Your task to perform on an android device: Search for razer blade on ebay, select the first entry, and add it to the cart. Image 0: 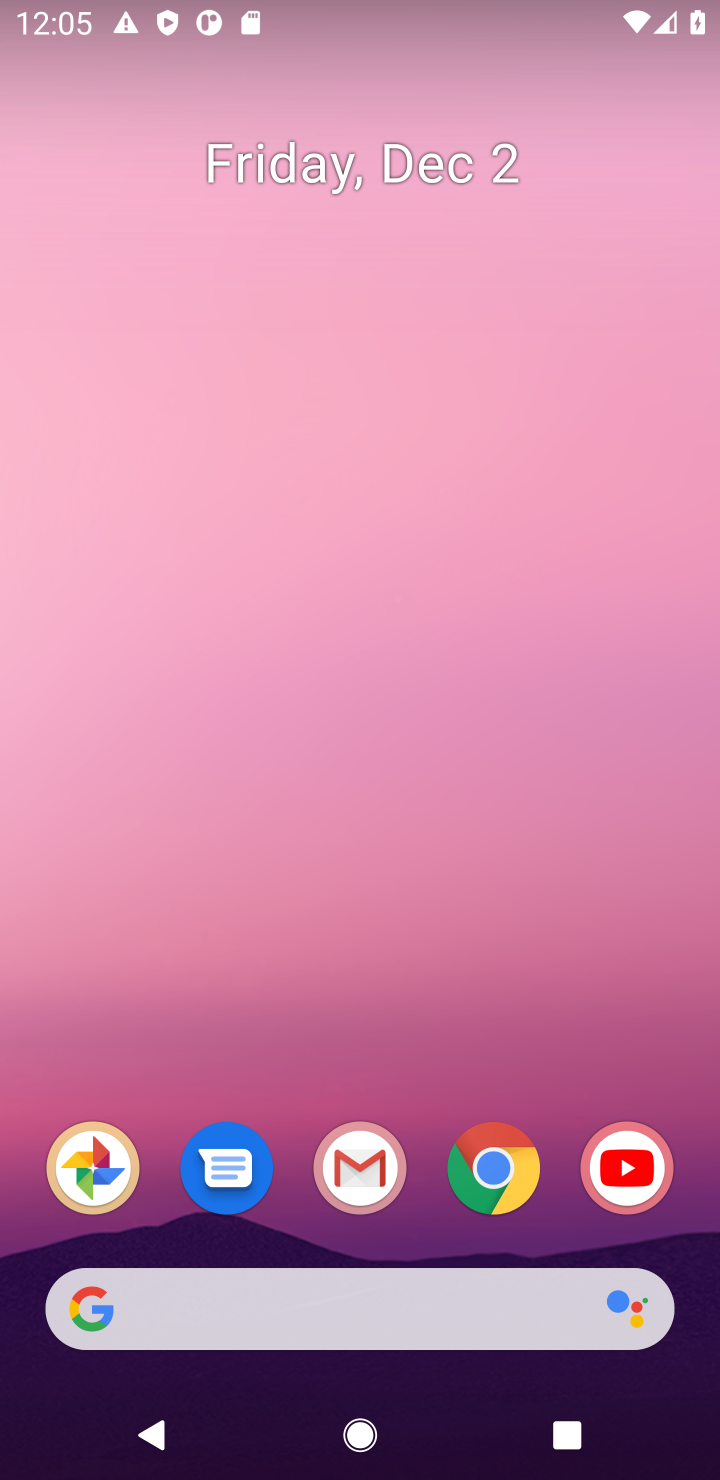
Step 0: click (84, 1306)
Your task to perform on an android device: Search for razer blade on ebay, select the first entry, and add it to the cart. Image 1: 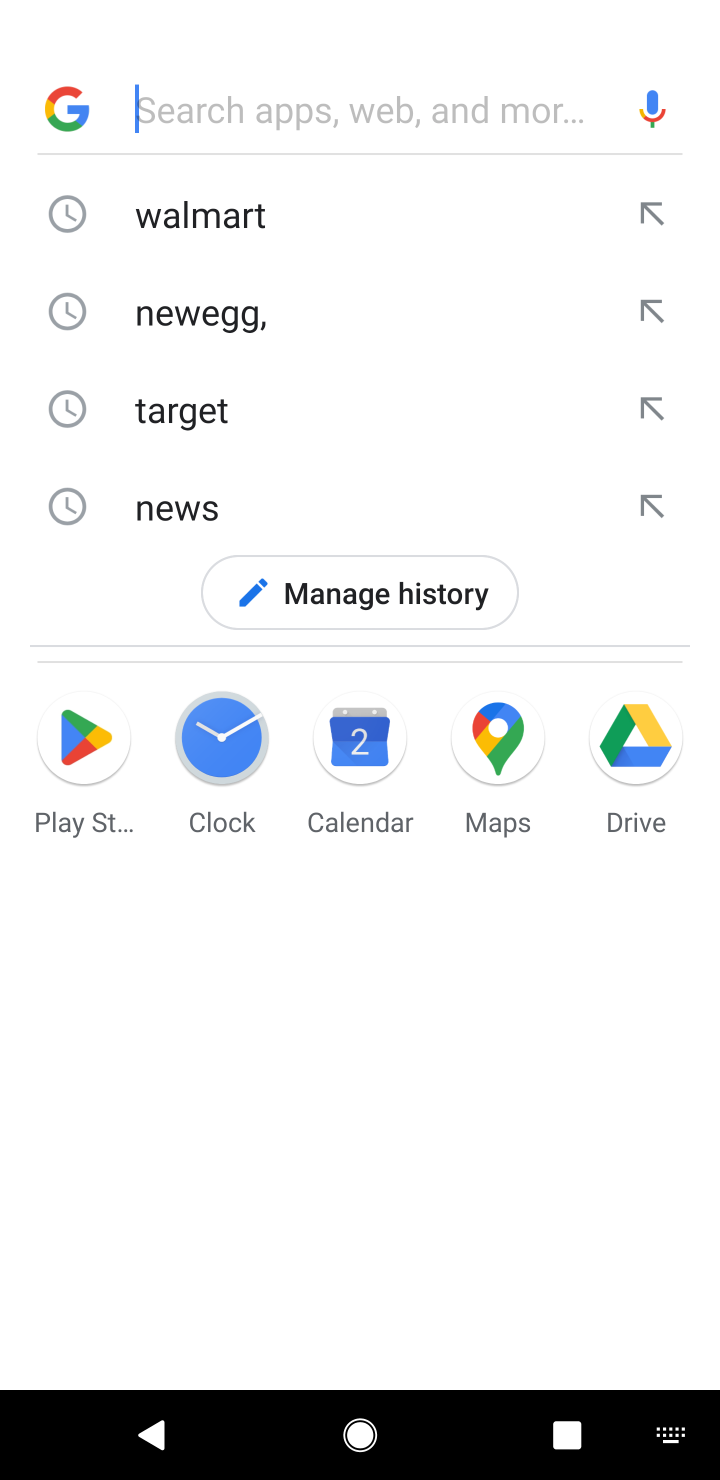
Step 1: click (353, 99)
Your task to perform on an android device: Search for razer blade on ebay, select the first entry, and add it to the cart. Image 2: 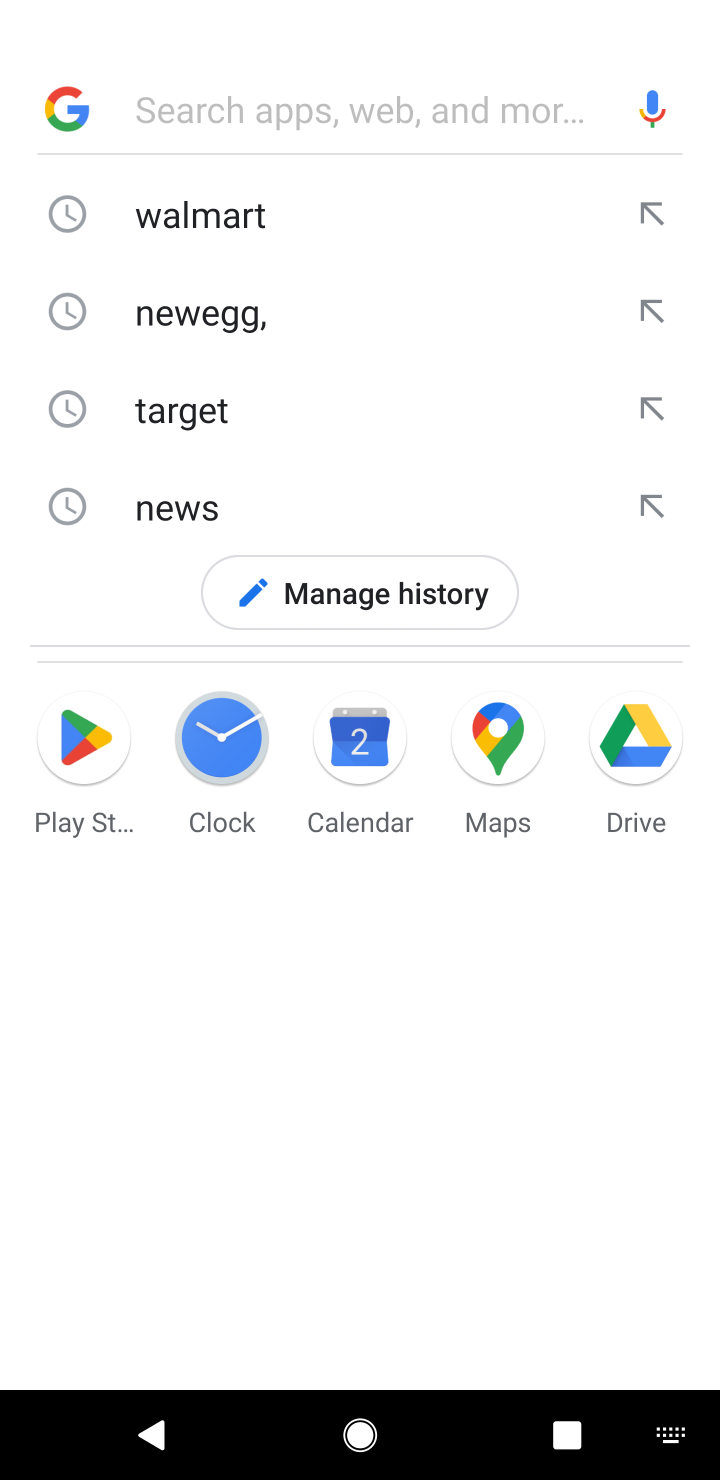
Step 2: type "ebay"
Your task to perform on an android device: Search for razer blade on ebay, select the first entry, and add it to the cart. Image 3: 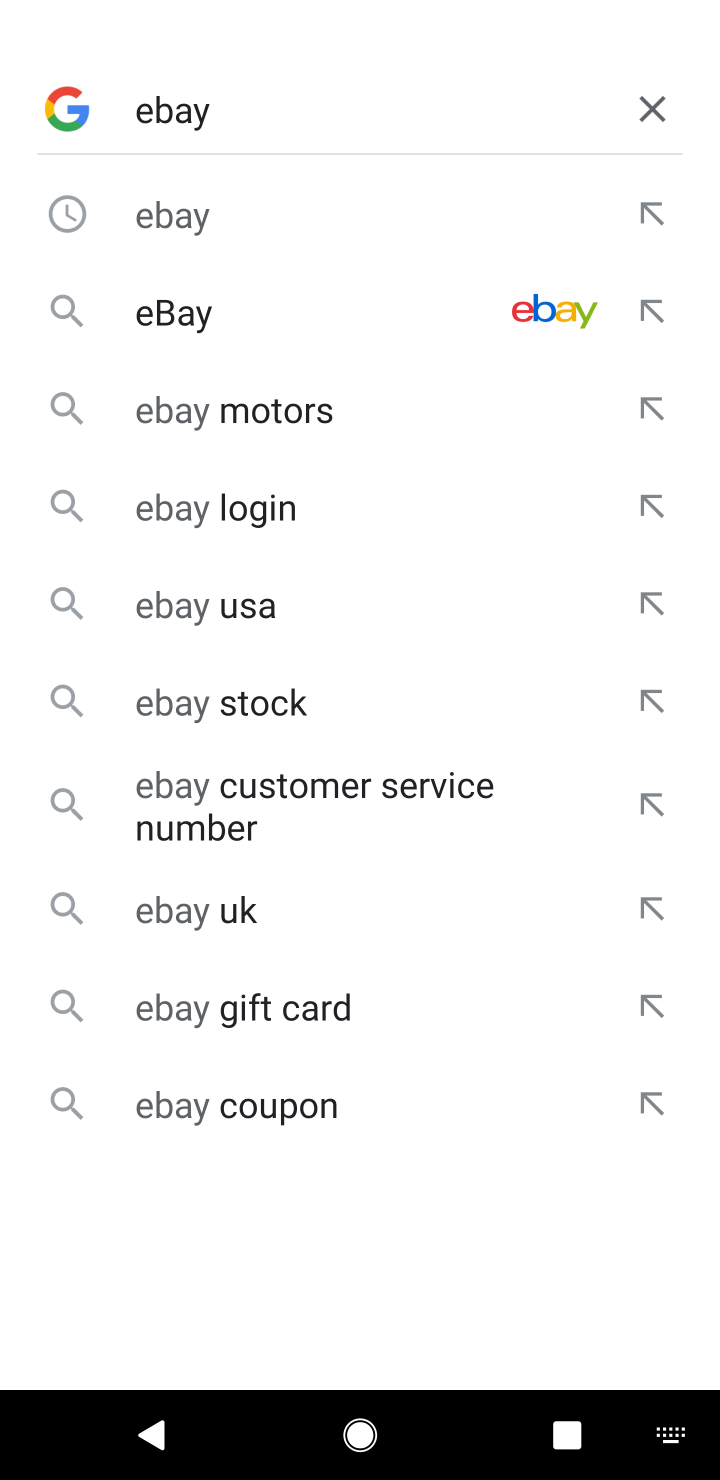
Step 3: click (226, 307)
Your task to perform on an android device: Search for razer blade on ebay, select the first entry, and add it to the cart. Image 4: 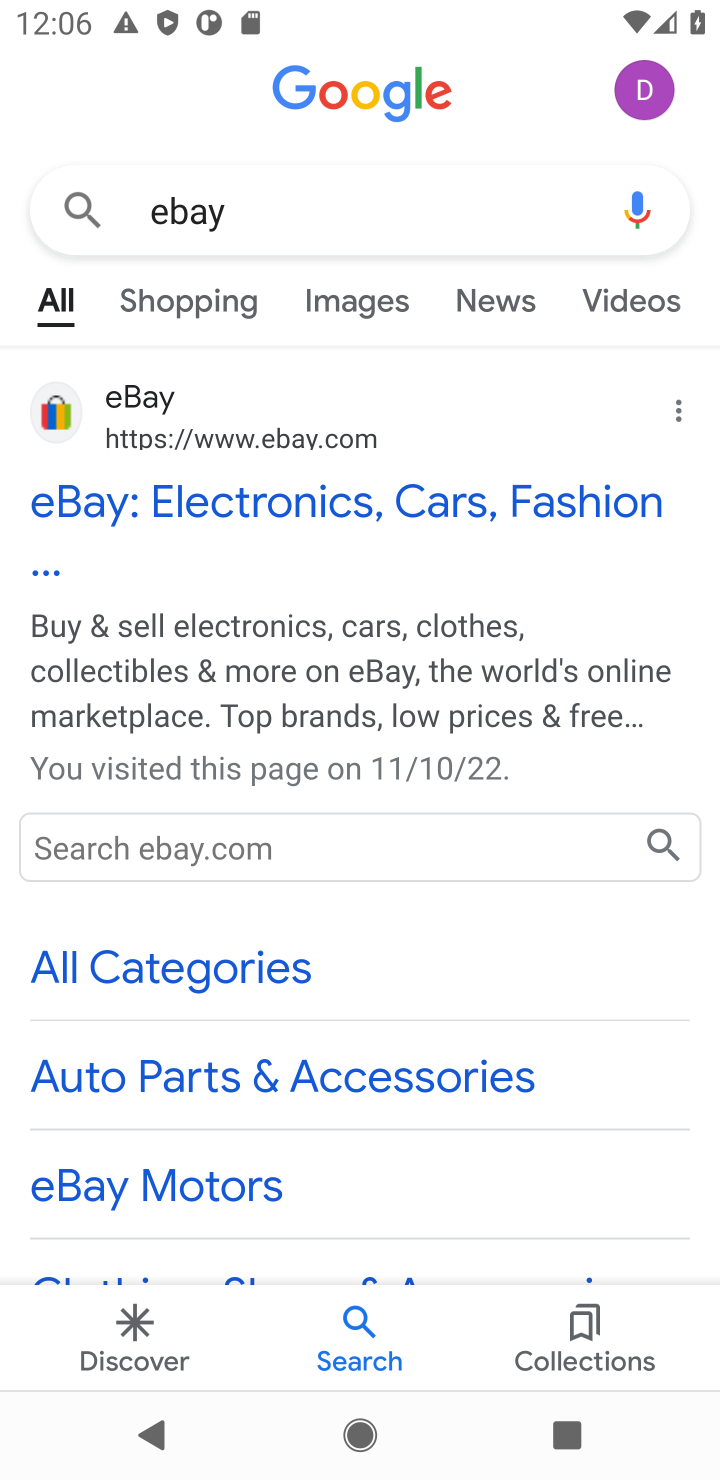
Step 4: click (274, 510)
Your task to perform on an android device: Search for razer blade on ebay, select the first entry, and add it to the cart. Image 5: 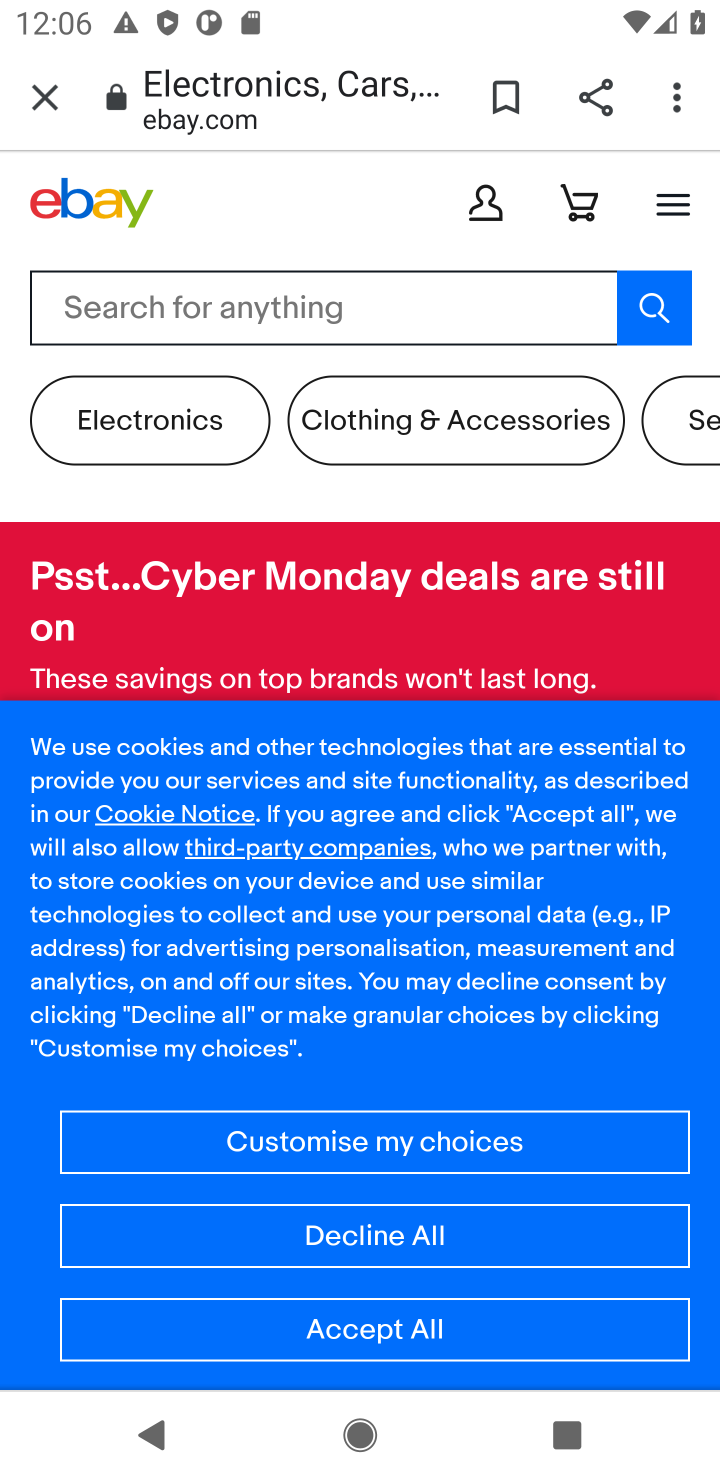
Step 5: click (278, 308)
Your task to perform on an android device: Search for razer blade on ebay, select the first entry, and add it to the cart. Image 6: 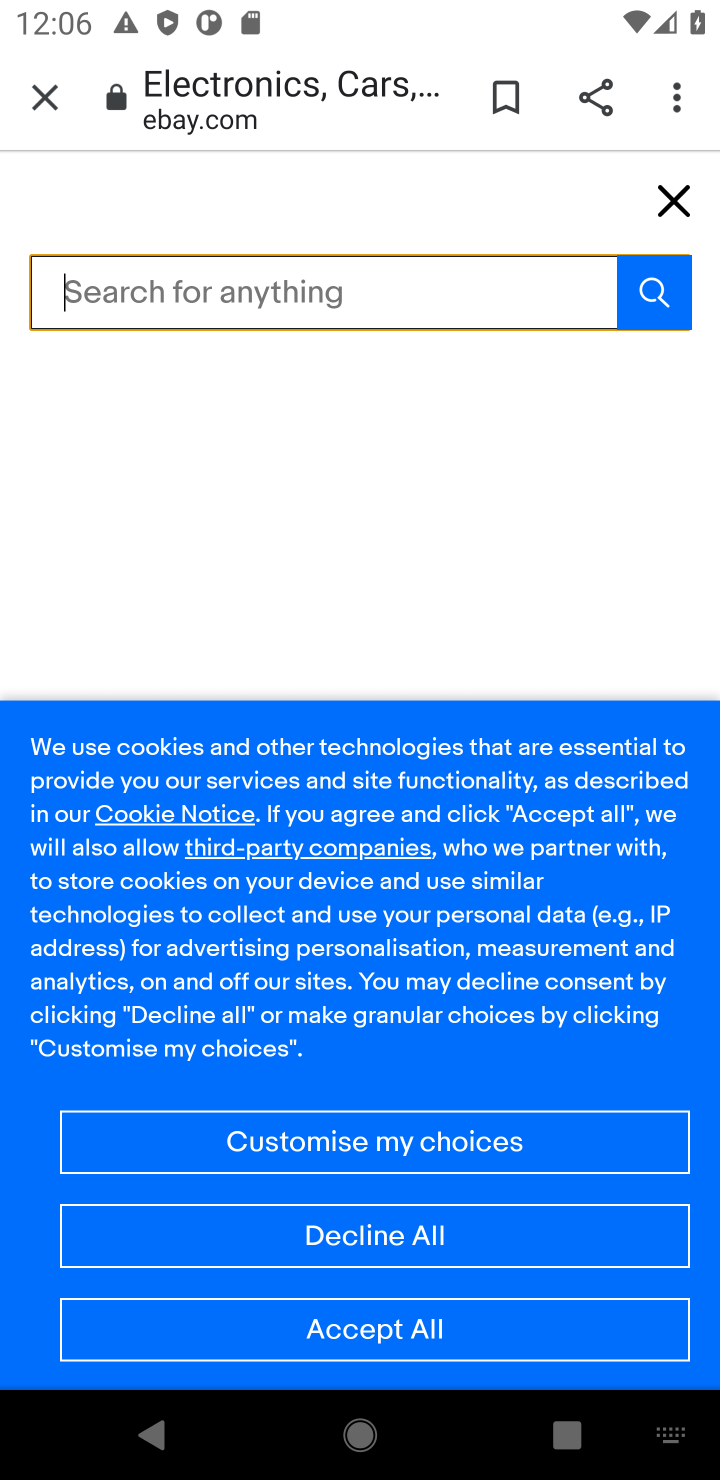
Step 6: click (362, 1332)
Your task to perform on an android device: Search for razer blade on ebay, select the first entry, and add it to the cart. Image 7: 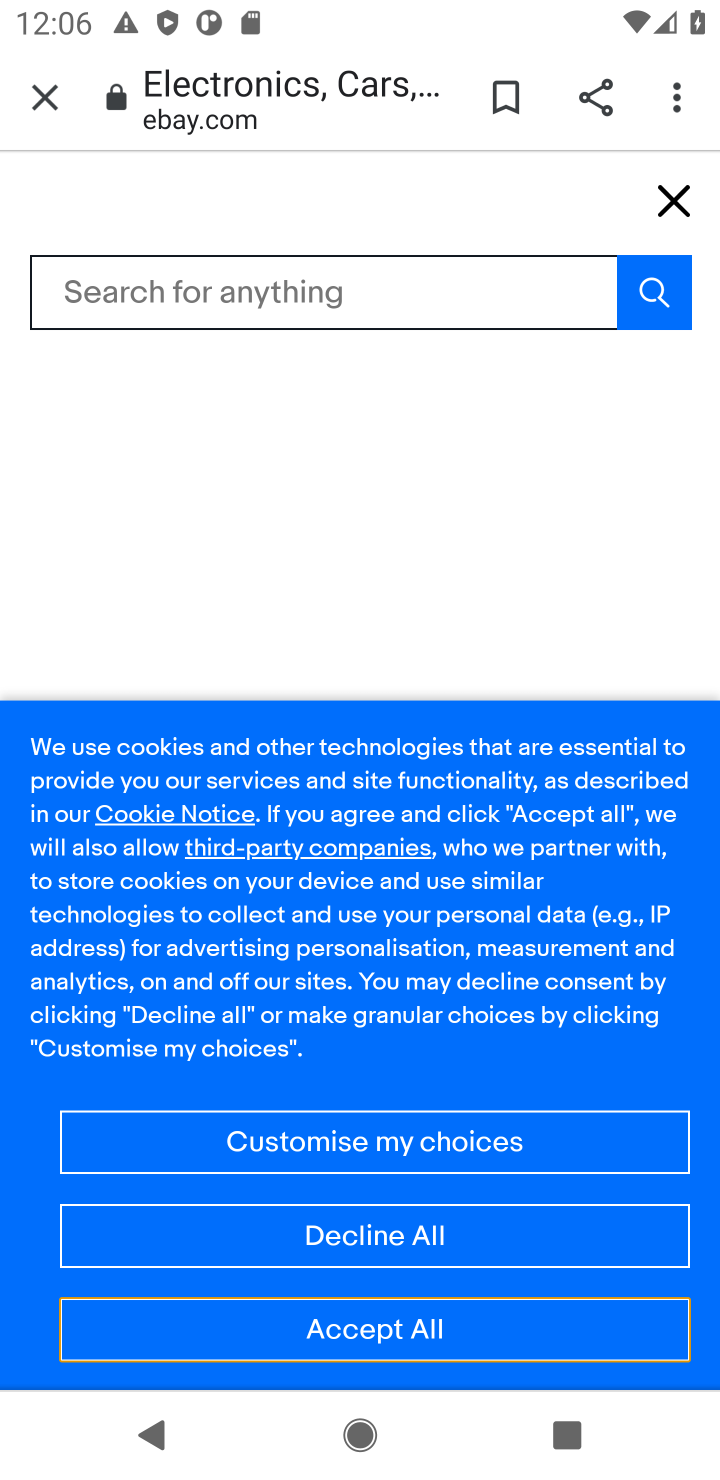
Step 7: click (420, 305)
Your task to perform on an android device: Search for razer blade on ebay, select the first entry, and add it to the cart. Image 8: 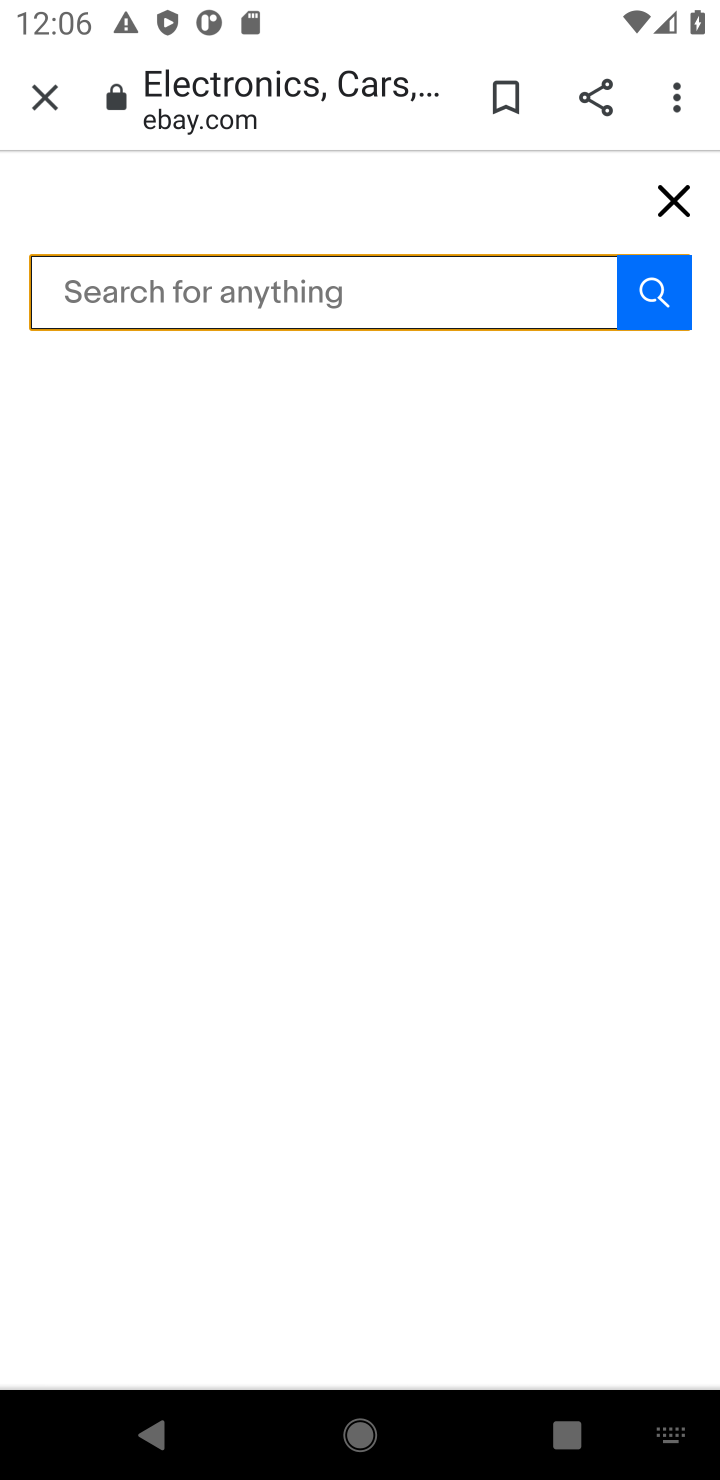
Step 8: type "razer blade"
Your task to perform on an android device: Search for razer blade on ebay, select the first entry, and add it to the cart. Image 9: 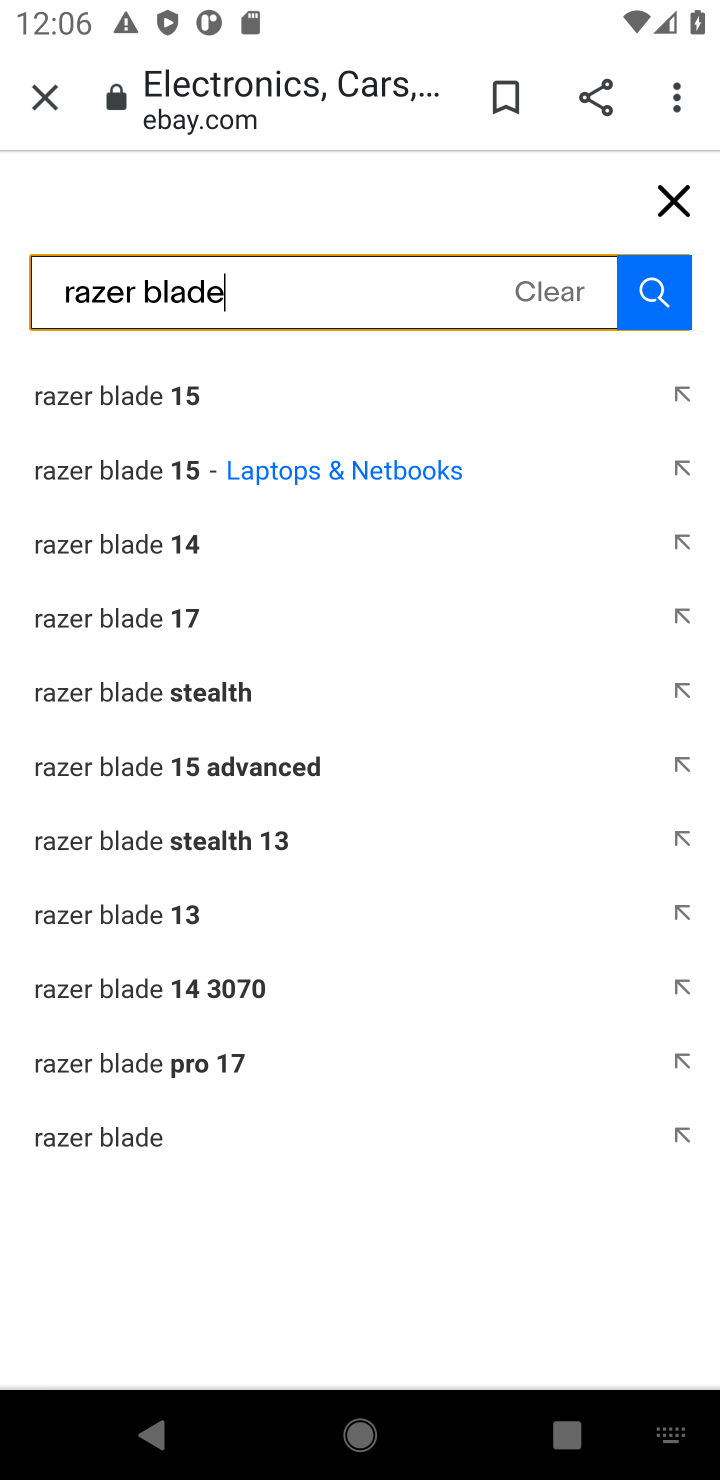
Step 9: click (85, 404)
Your task to perform on an android device: Search for razer blade on ebay, select the first entry, and add it to the cart. Image 10: 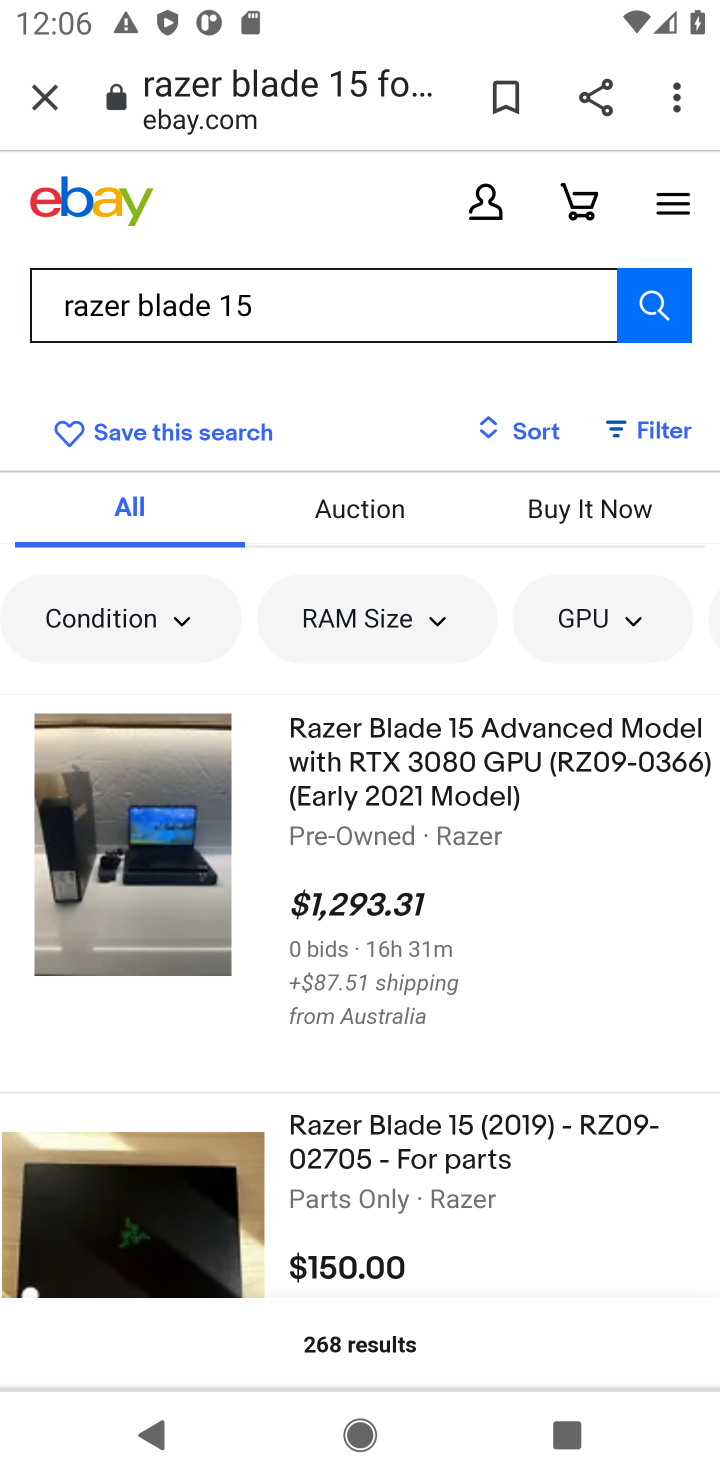
Step 10: click (182, 856)
Your task to perform on an android device: Search for razer blade on ebay, select the first entry, and add it to the cart. Image 11: 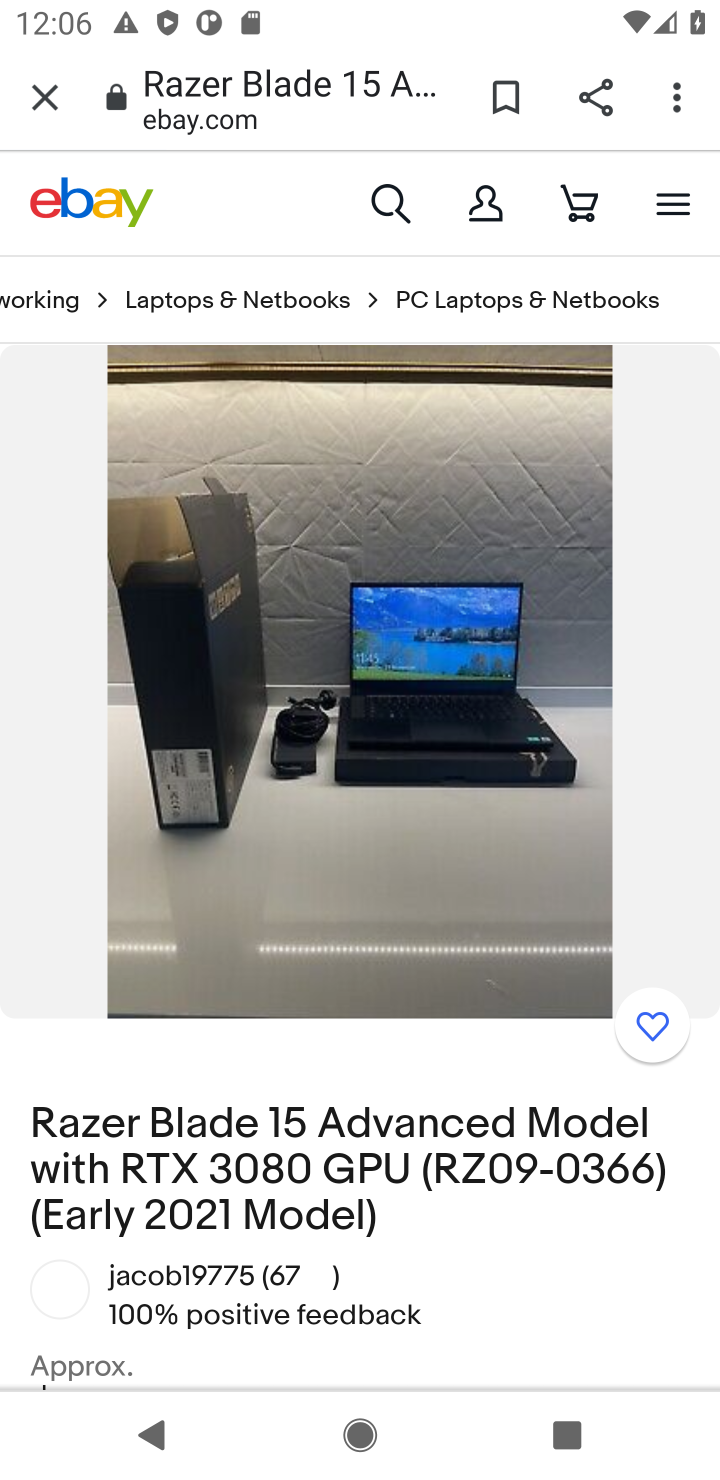
Step 11: drag from (470, 1169) to (416, 533)
Your task to perform on an android device: Search for razer blade on ebay, select the first entry, and add it to the cart. Image 12: 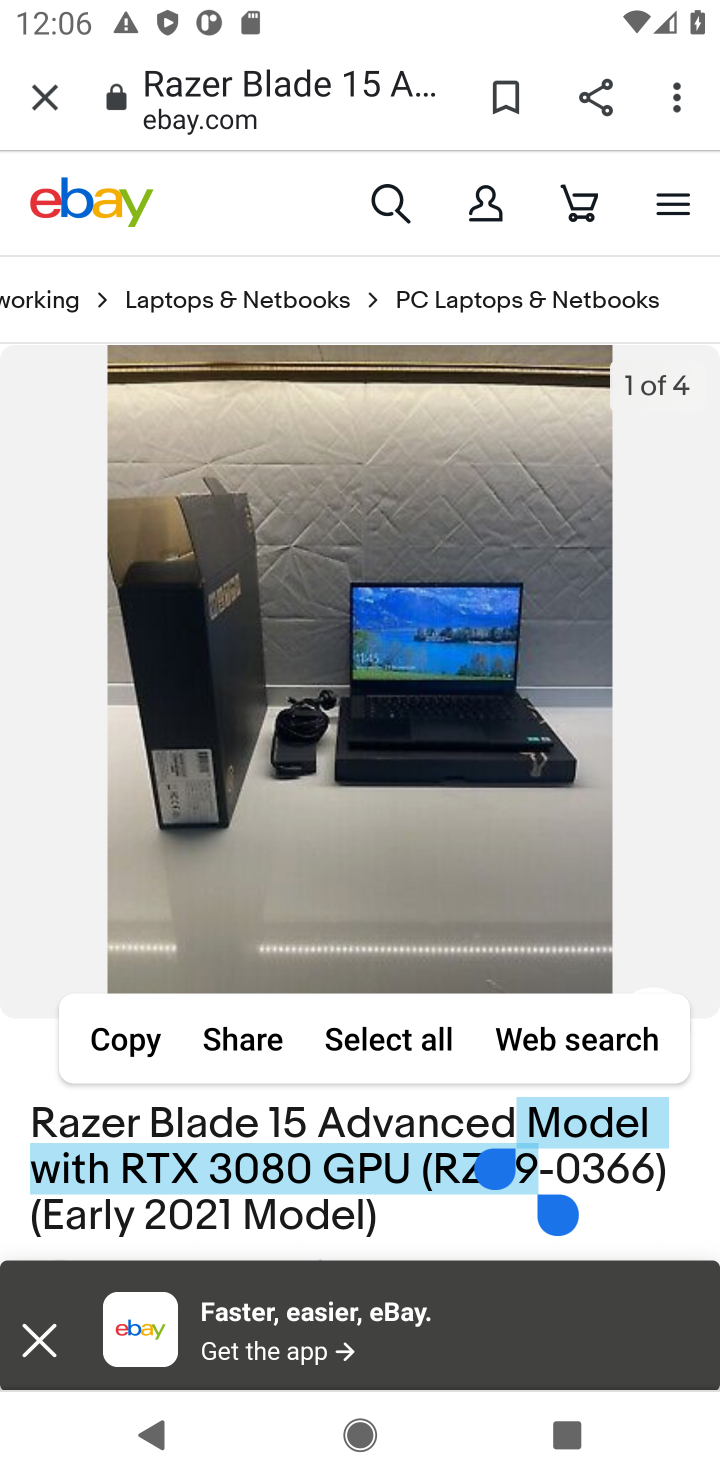
Step 12: click (653, 1139)
Your task to perform on an android device: Search for razer blade on ebay, select the first entry, and add it to the cart. Image 13: 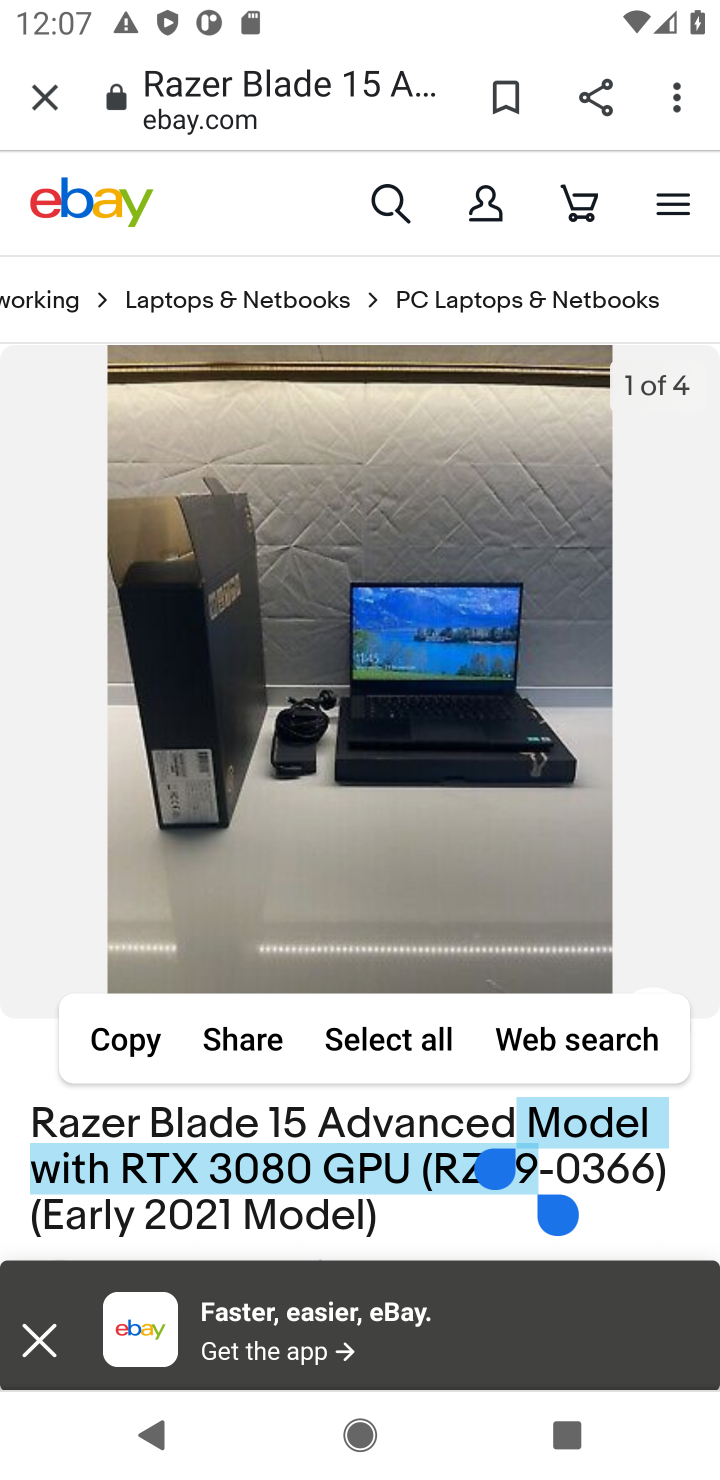
Step 13: click (659, 1158)
Your task to perform on an android device: Search for razer blade on ebay, select the first entry, and add it to the cart. Image 14: 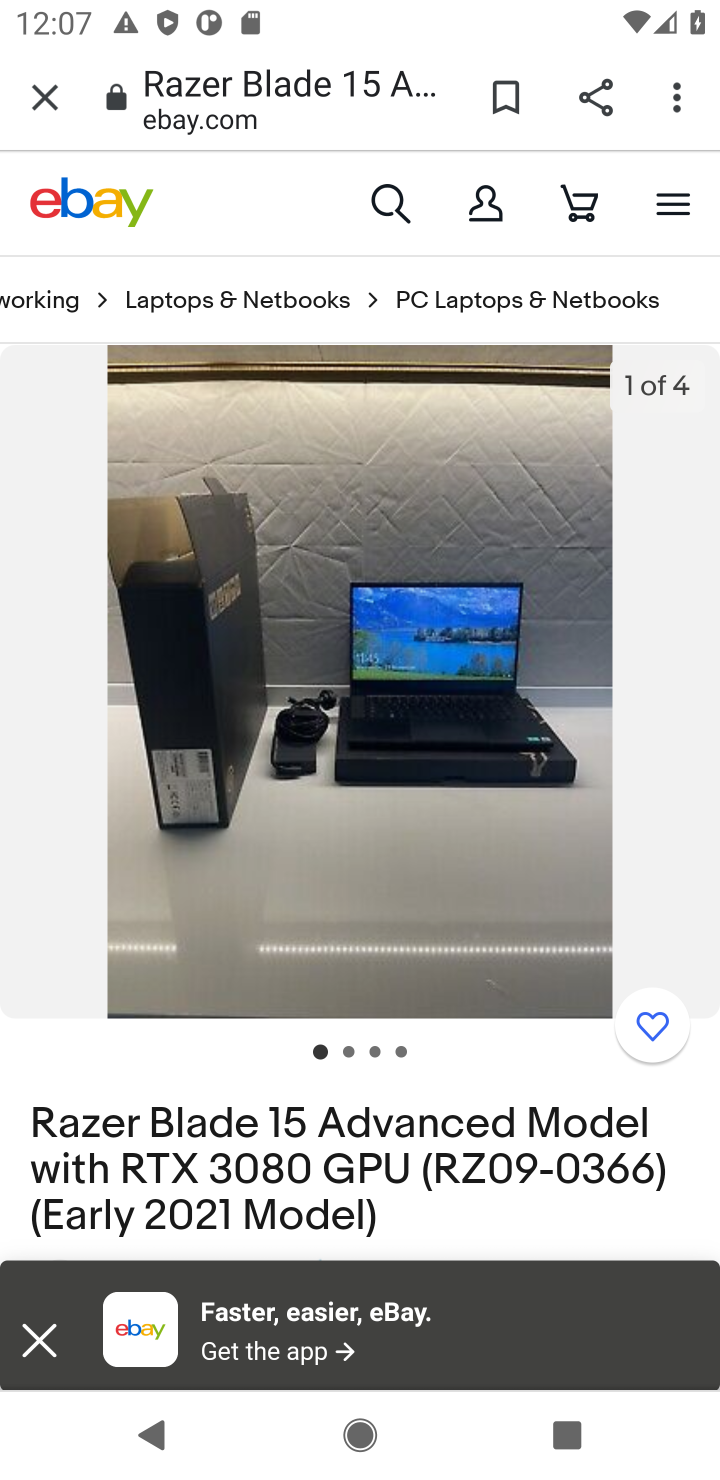
Step 14: drag from (659, 1158) to (567, 356)
Your task to perform on an android device: Search for razer blade on ebay, select the first entry, and add it to the cart. Image 15: 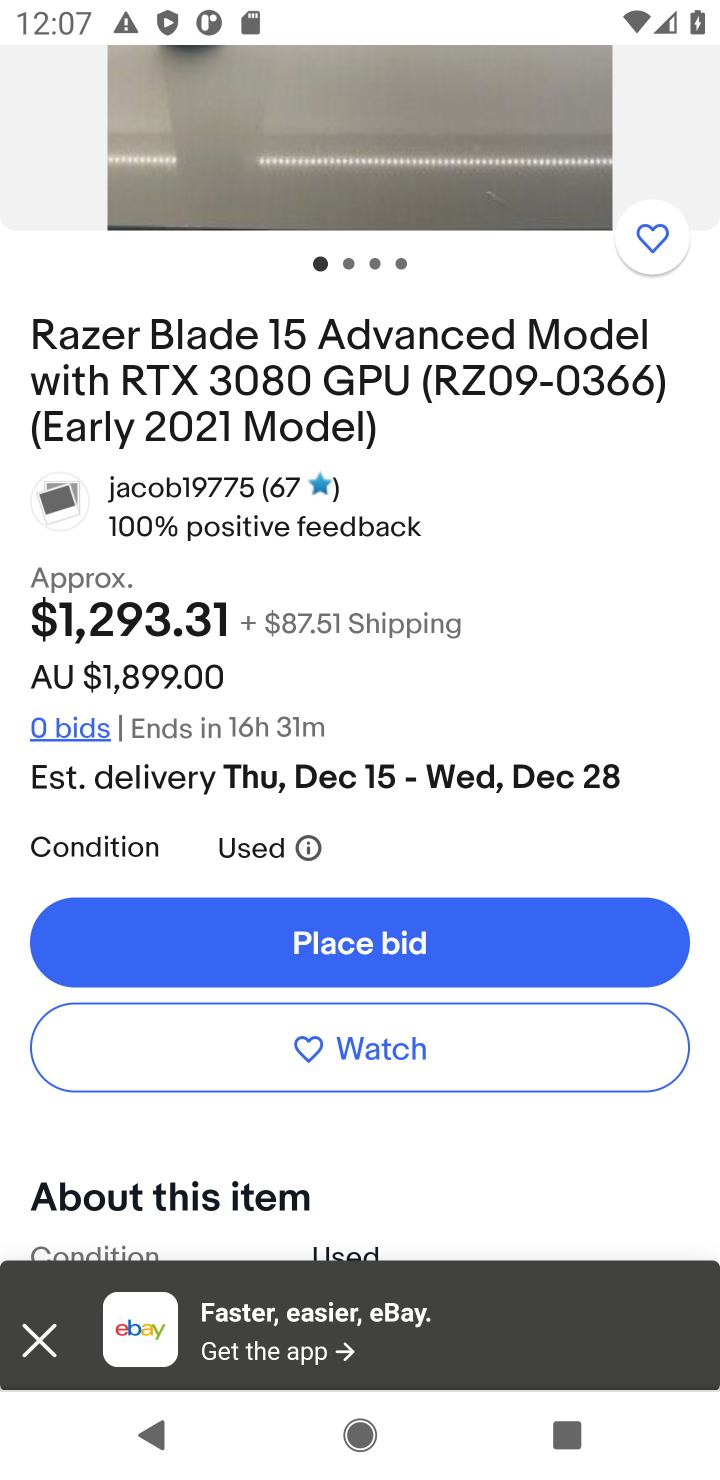
Step 15: click (345, 948)
Your task to perform on an android device: Search for razer blade on ebay, select the first entry, and add it to the cart. Image 16: 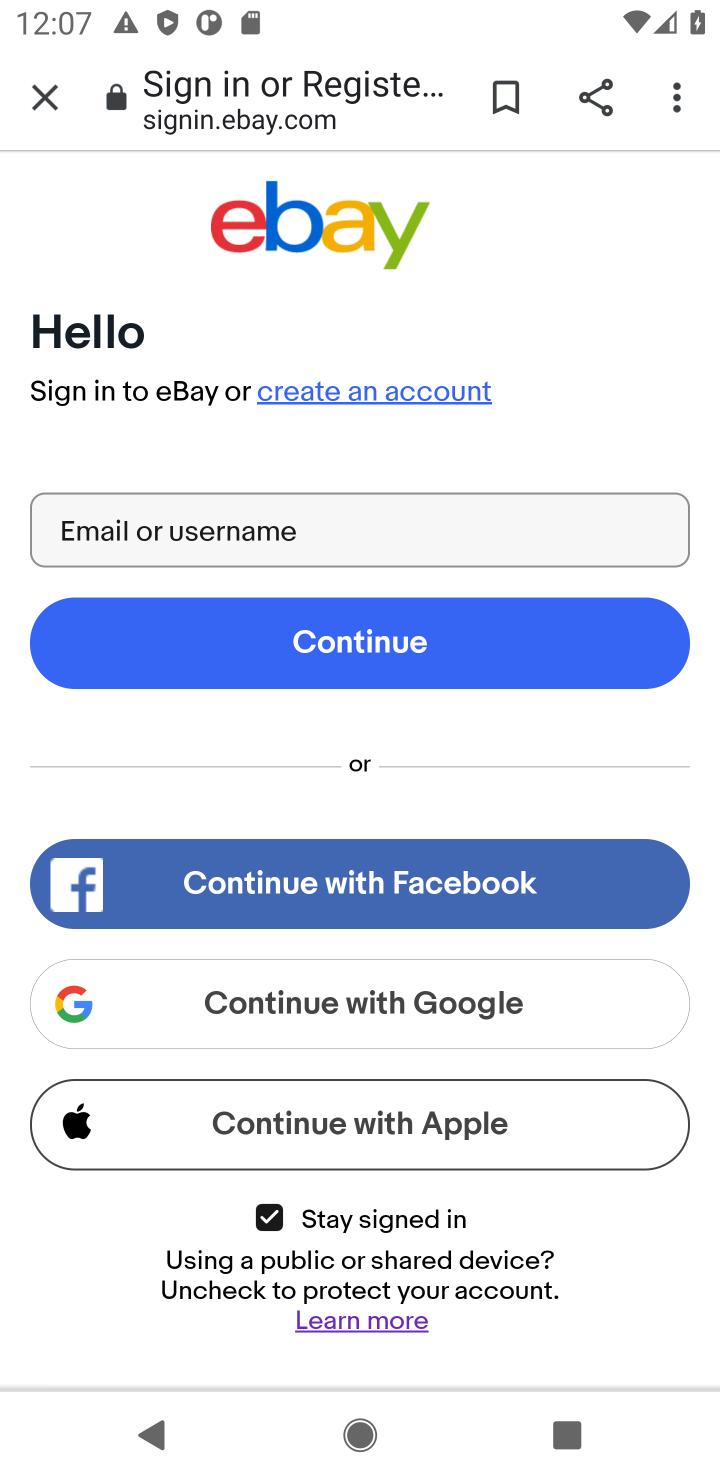
Step 16: task complete